Your task to perform on an android device: turn off notifications settings in the gmail app Image 0: 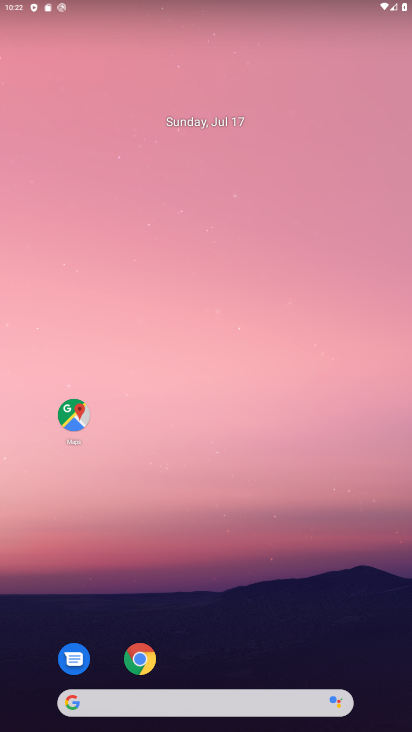
Step 0: drag from (309, 645) to (251, 41)
Your task to perform on an android device: turn off notifications settings in the gmail app Image 1: 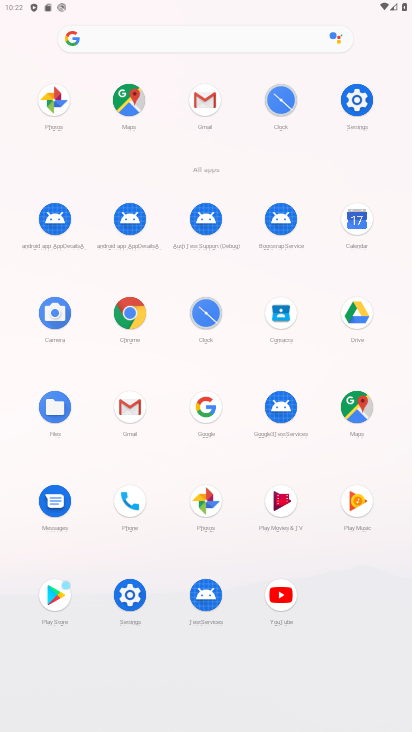
Step 1: click (206, 95)
Your task to perform on an android device: turn off notifications settings in the gmail app Image 2: 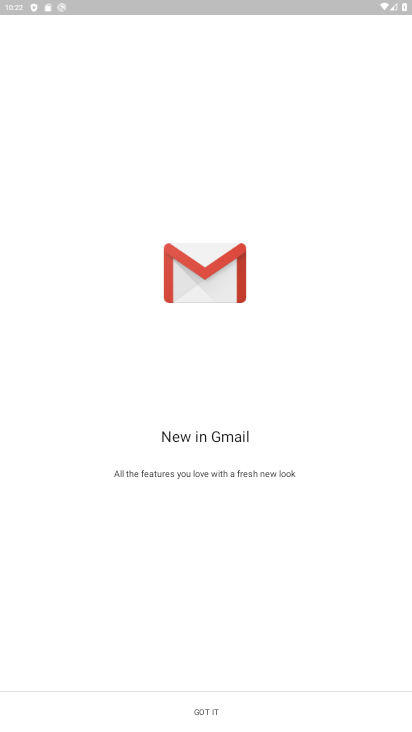
Step 2: click (228, 714)
Your task to perform on an android device: turn off notifications settings in the gmail app Image 3: 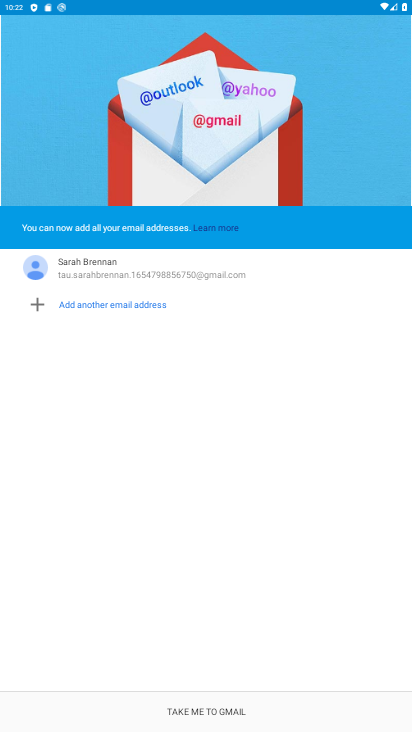
Step 3: click (228, 711)
Your task to perform on an android device: turn off notifications settings in the gmail app Image 4: 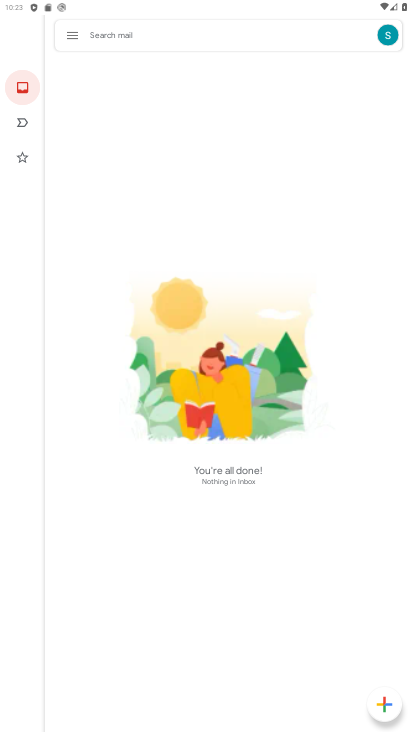
Step 4: click (76, 31)
Your task to perform on an android device: turn off notifications settings in the gmail app Image 5: 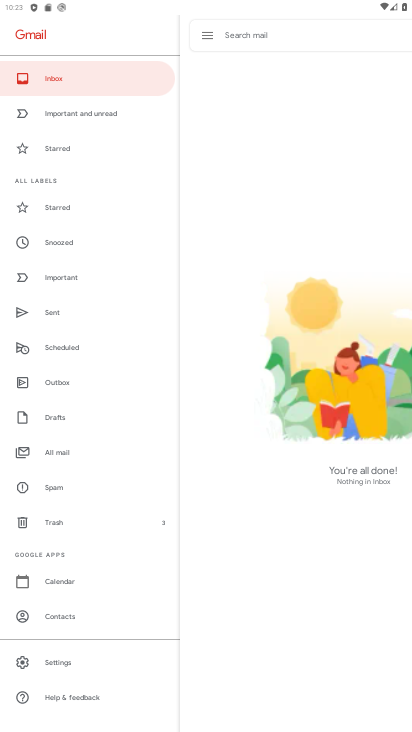
Step 5: click (65, 655)
Your task to perform on an android device: turn off notifications settings in the gmail app Image 6: 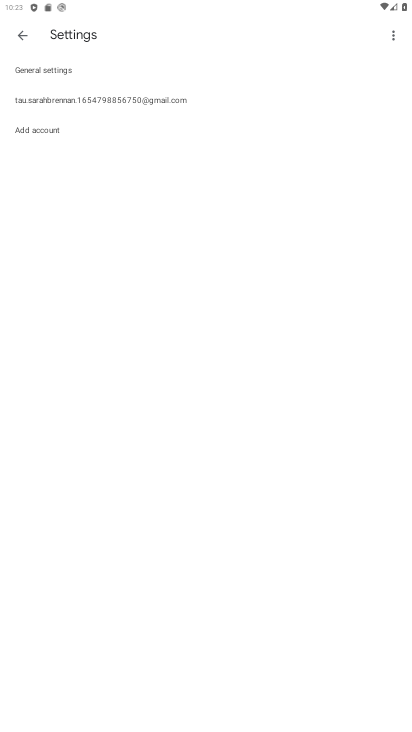
Step 6: click (126, 99)
Your task to perform on an android device: turn off notifications settings in the gmail app Image 7: 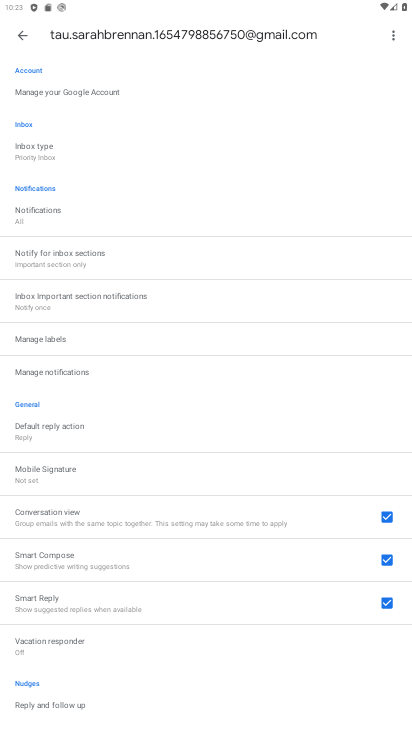
Step 7: click (65, 375)
Your task to perform on an android device: turn off notifications settings in the gmail app Image 8: 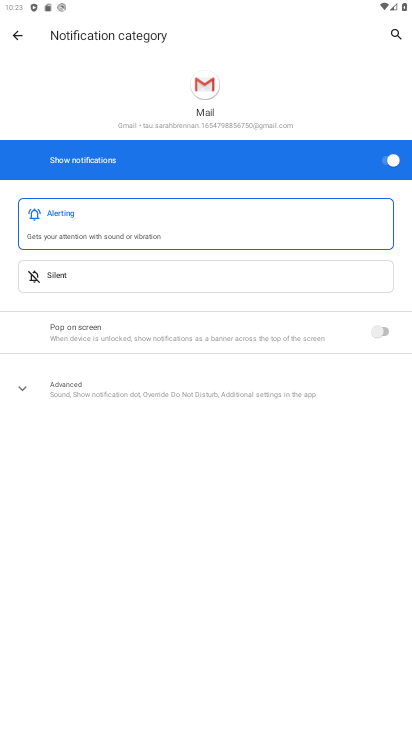
Step 8: click (388, 155)
Your task to perform on an android device: turn off notifications settings in the gmail app Image 9: 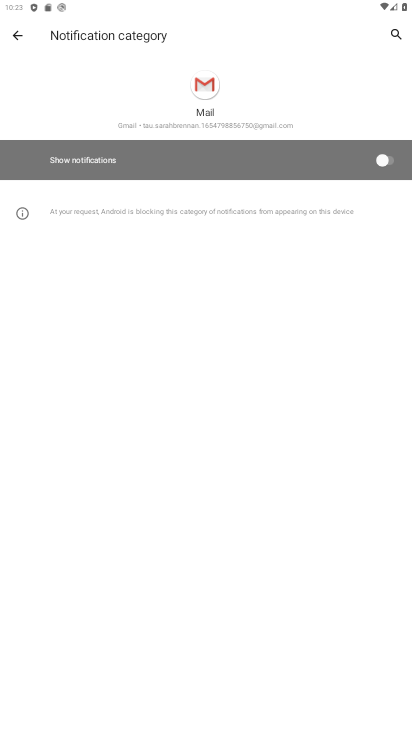
Step 9: task complete